Your task to perform on an android device: turn off javascript in the chrome app Image 0: 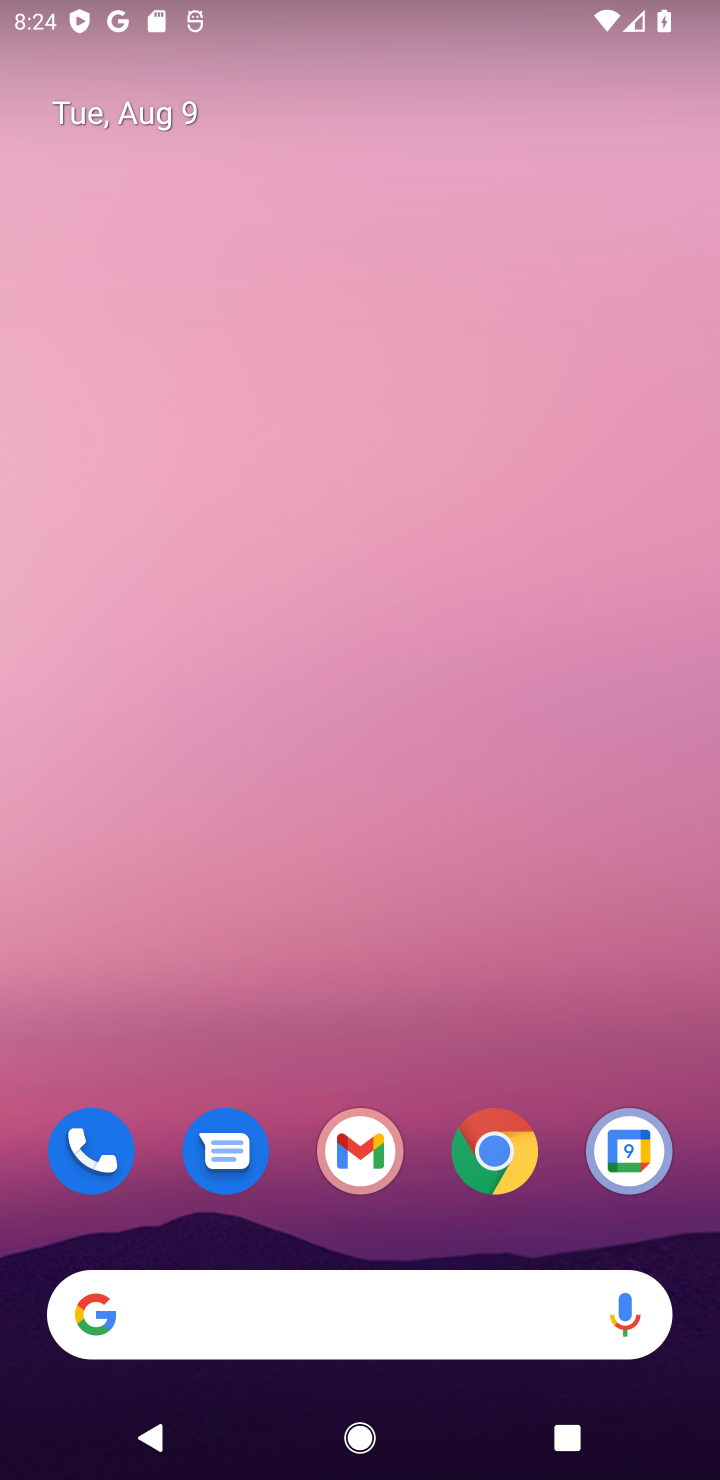
Step 0: click (464, 1154)
Your task to perform on an android device: turn off javascript in the chrome app Image 1: 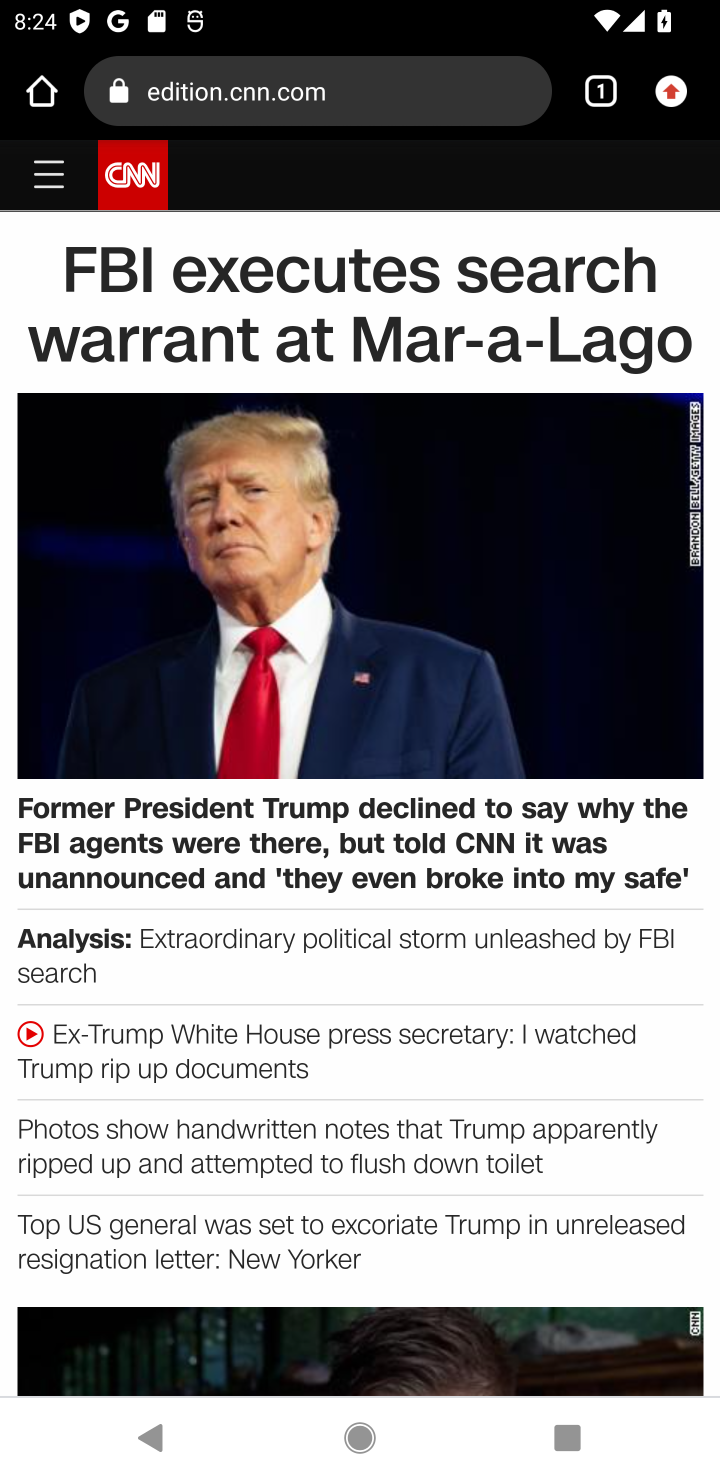
Step 1: click (670, 91)
Your task to perform on an android device: turn off javascript in the chrome app Image 2: 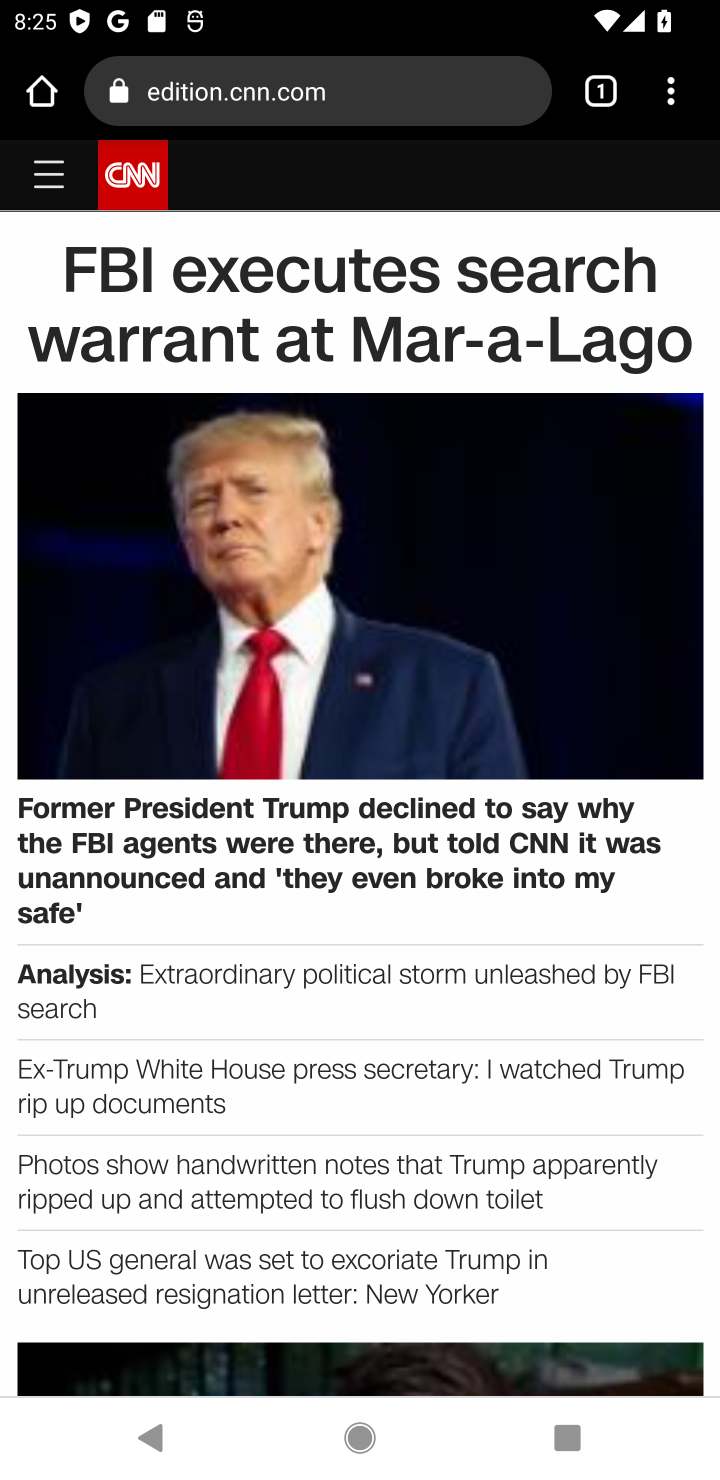
Step 2: click (669, 95)
Your task to perform on an android device: turn off javascript in the chrome app Image 3: 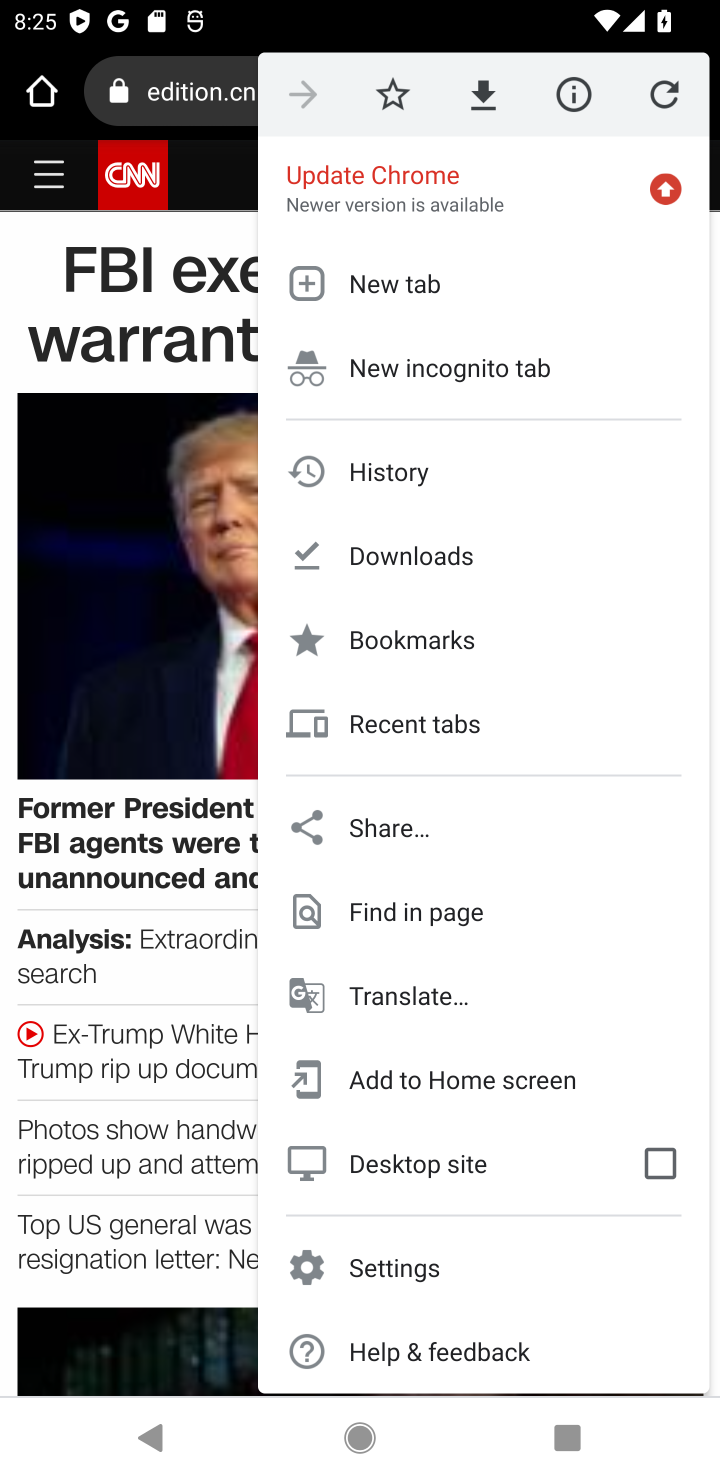
Step 3: click (370, 1270)
Your task to perform on an android device: turn off javascript in the chrome app Image 4: 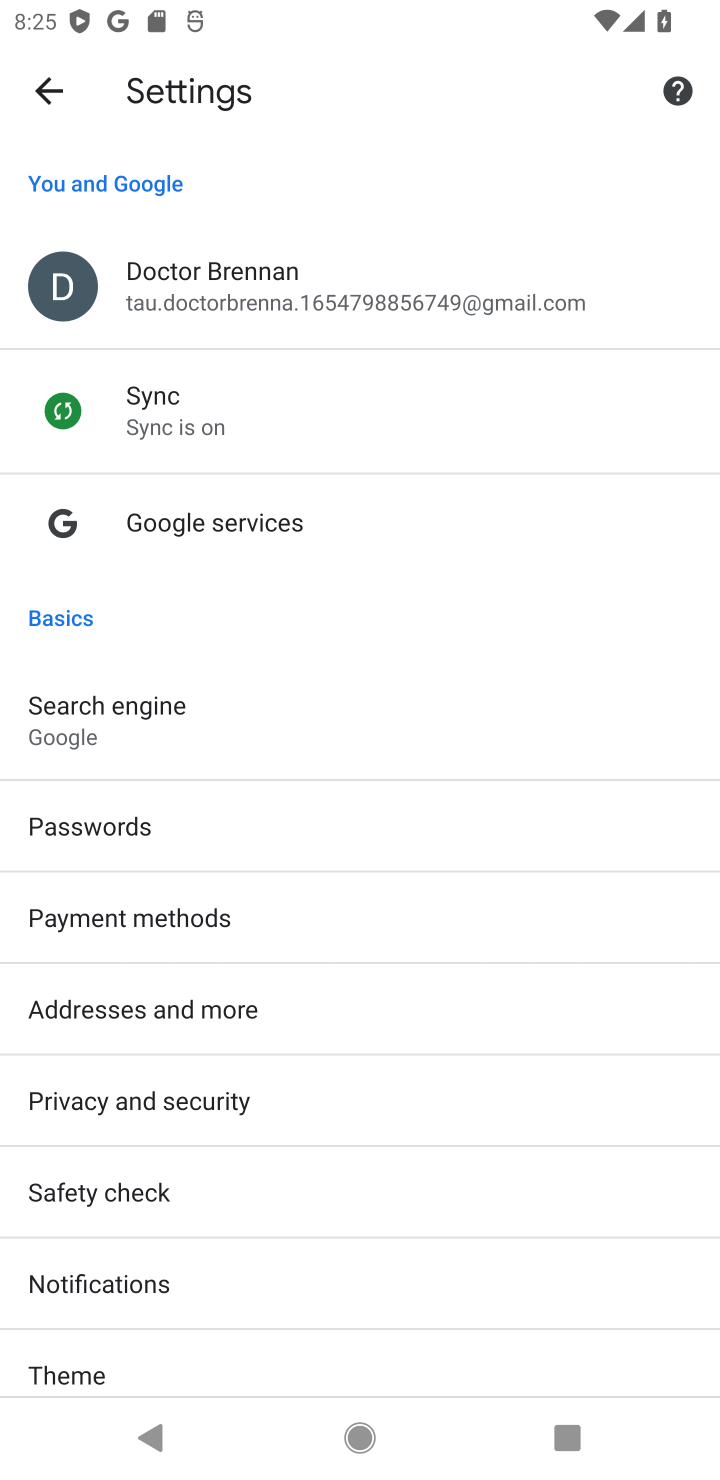
Step 4: drag from (442, 726) to (361, 212)
Your task to perform on an android device: turn off javascript in the chrome app Image 5: 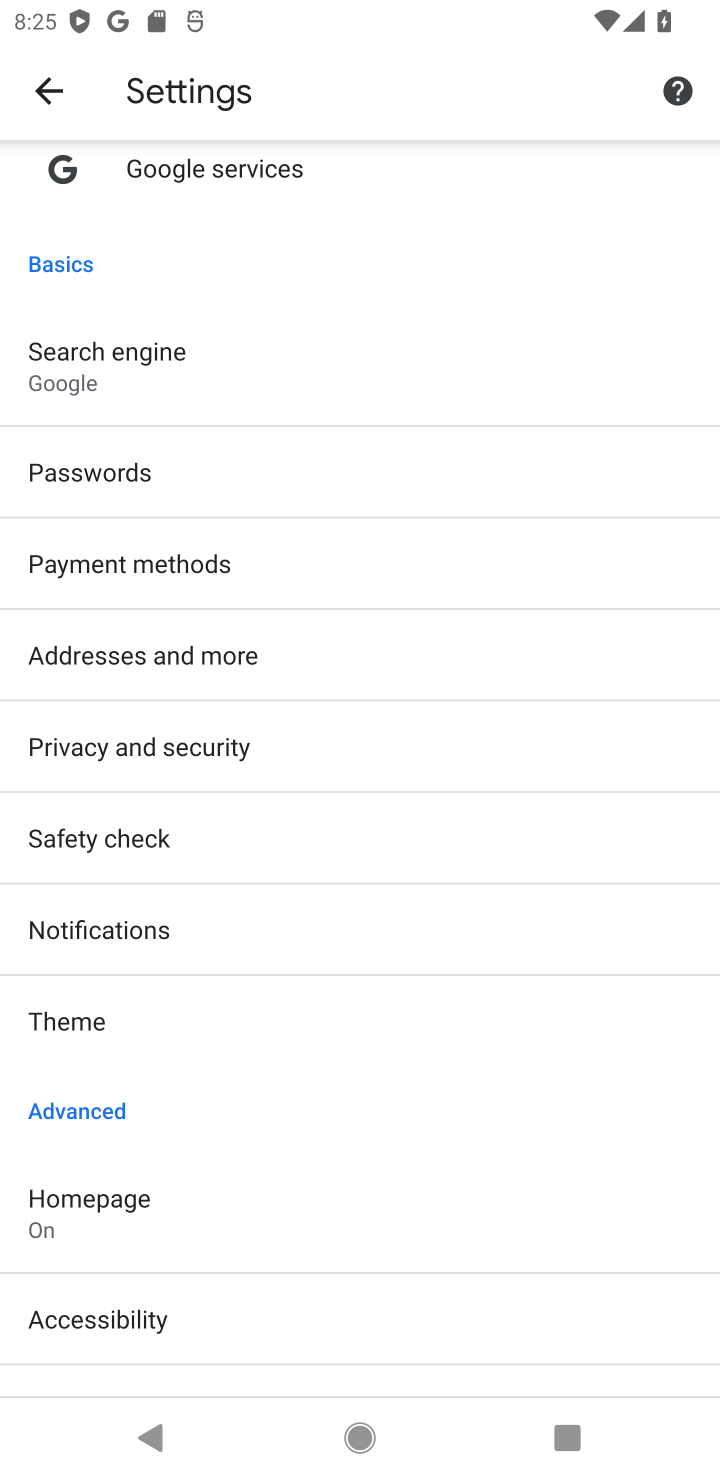
Step 5: drag from (338, 1099) to (217, 471)
Your task to perform on an android device: turn off javascript in the chrome app Image 6: 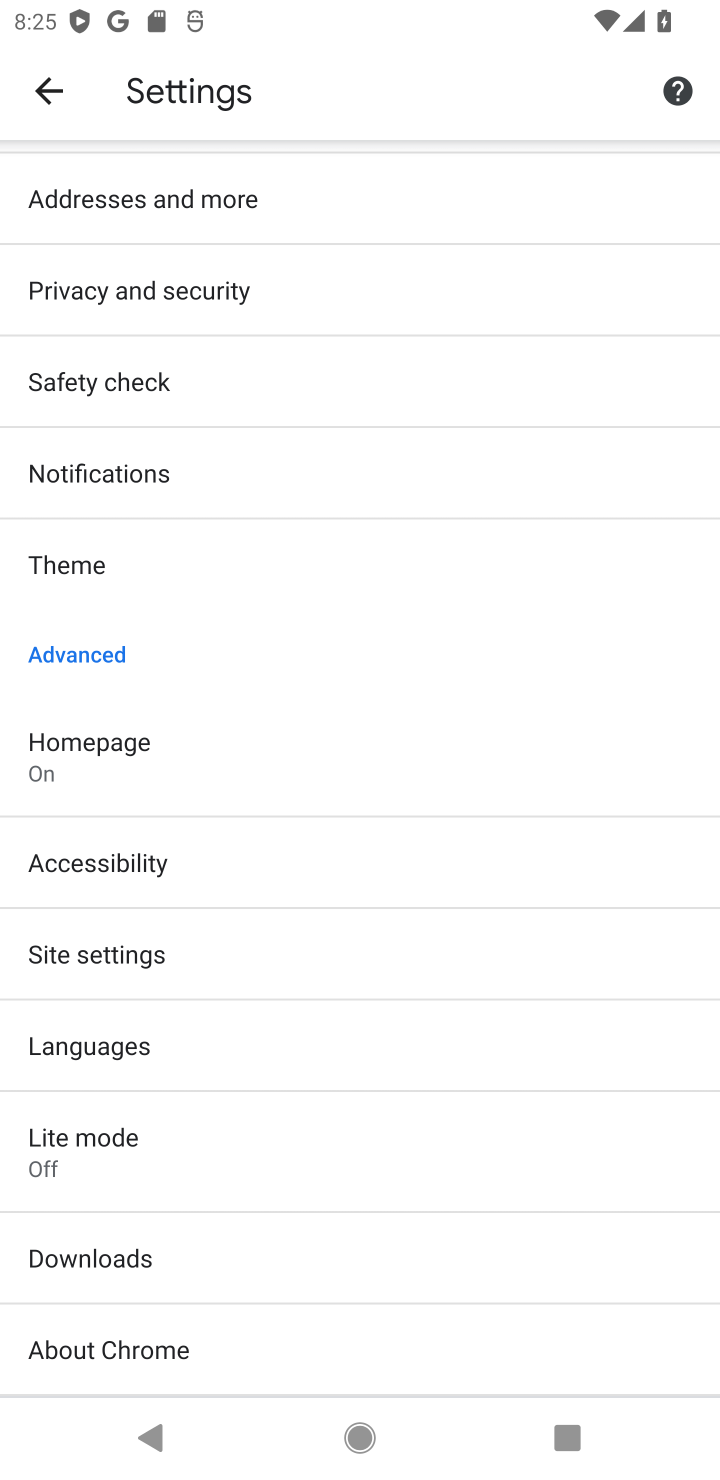
Step 6: click (53, 961)
Your task to perform on an android device: turn off javascript in the chrome app Image 7: 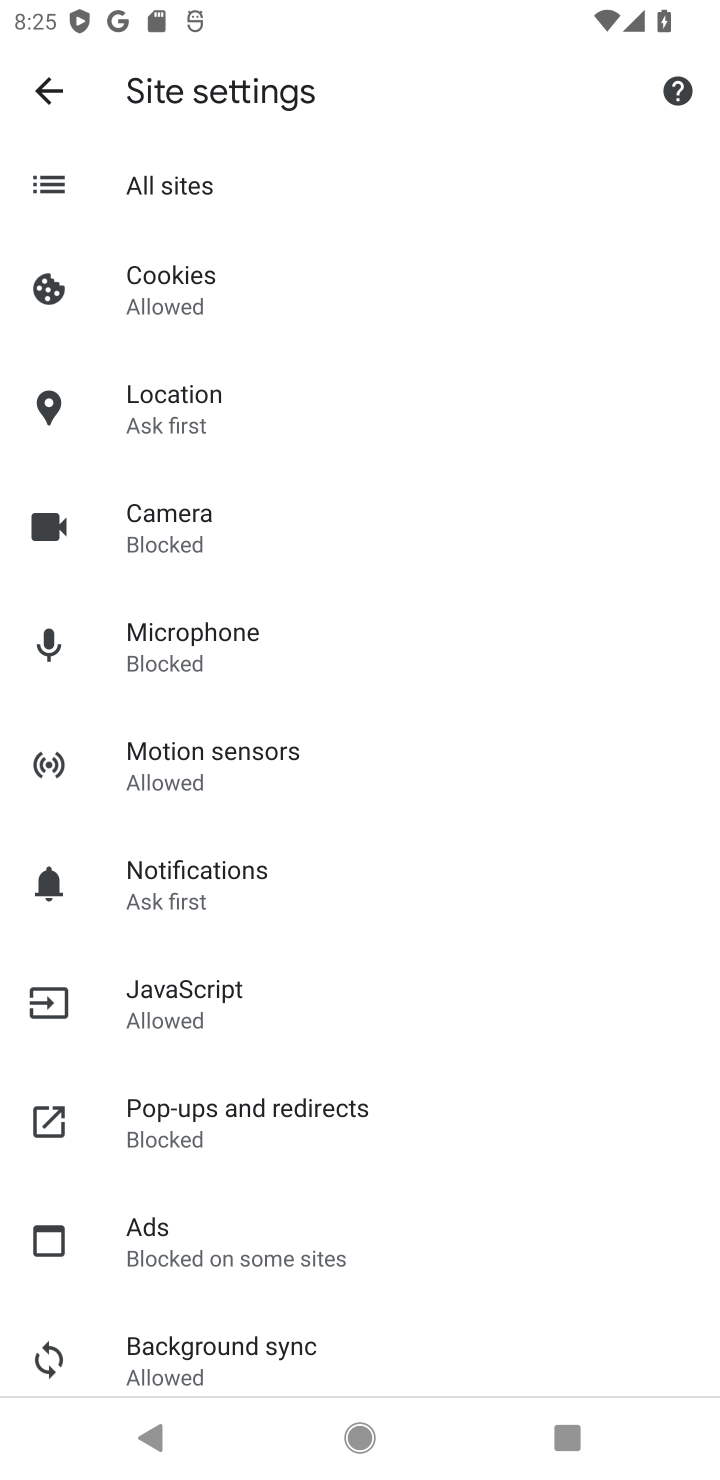
Step 7: click (290, 987)
Your task to perform on an android device: turn off javascript in the chrome app Image 8: 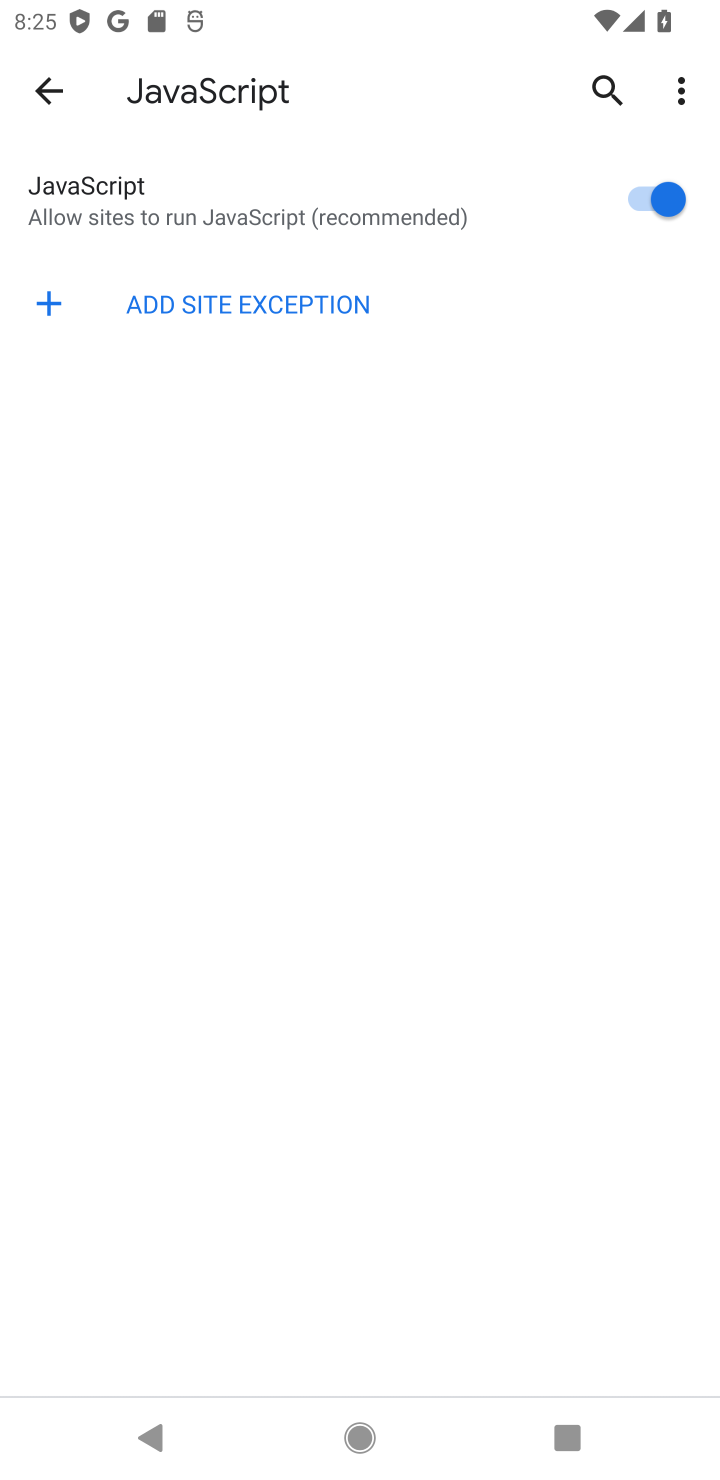
Step 8: click (649, 199)
Your task to perform on an android device: turn off javascript in the chrome app Image 9: 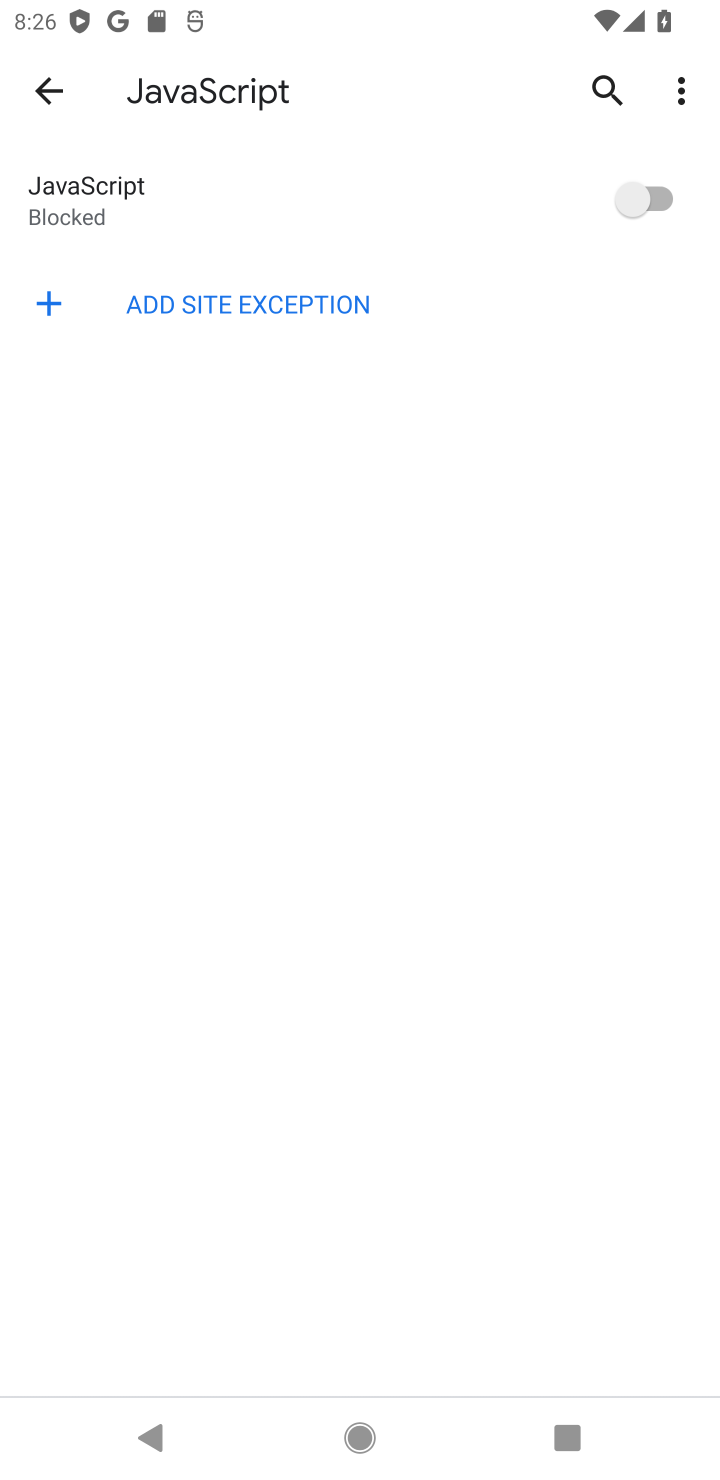
Step 9: task complete